Your task to perform on an android device: Is it going to rain today? Image 0: 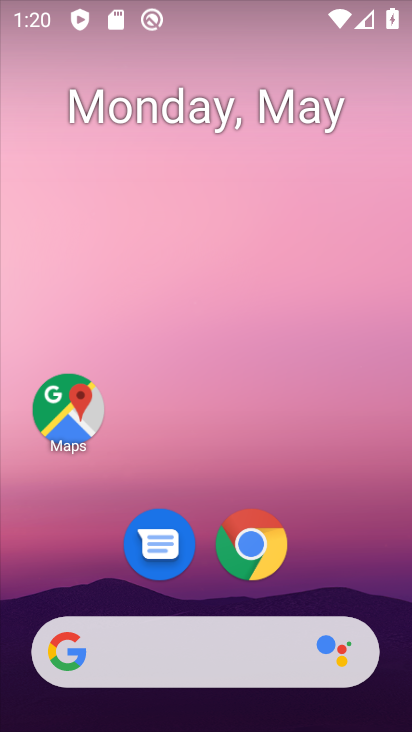
Step 0: click (172, 664)
Your task to perform on an android device: Is it going to rain today? Image 1: 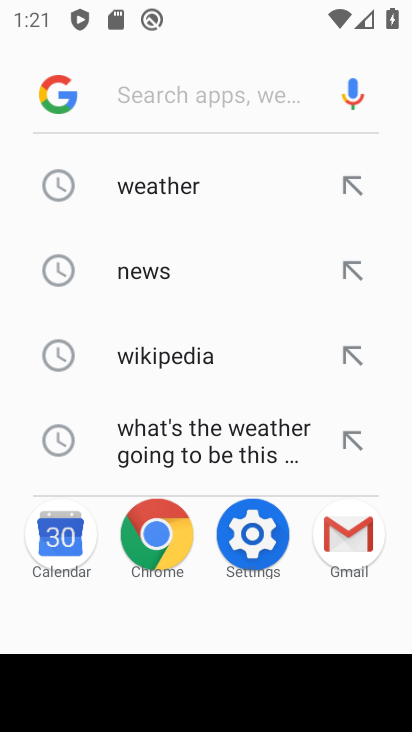
Step 1: click (202, 192)
Your task to perform on an android device: Is it going to rain today? Image 2: 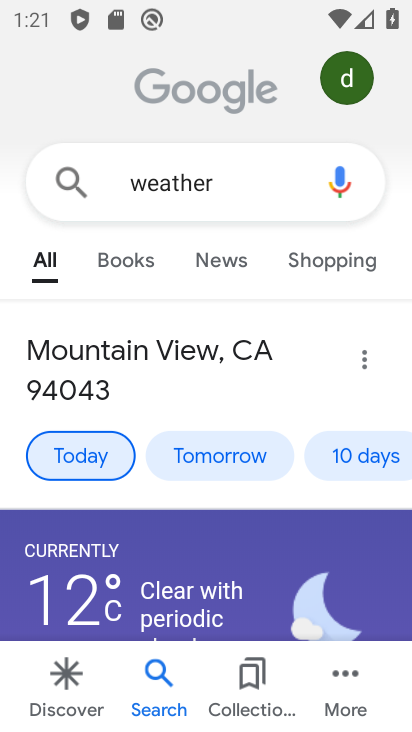
Step 2: task complete